Your task to perform on an android device: check google app version Image 0: 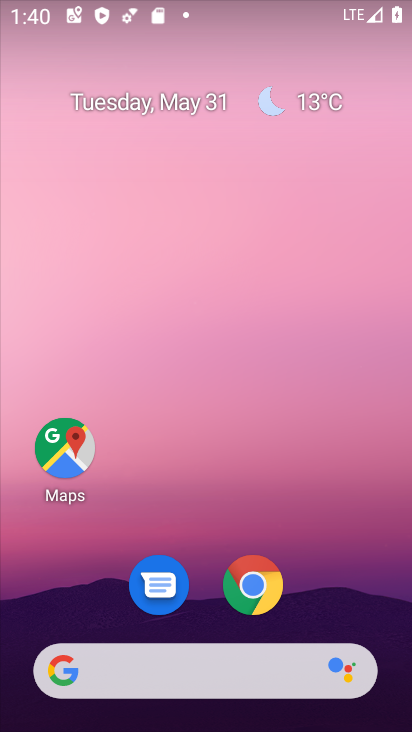
Step 0: drag from (219, 488) to (207, 66)
Your task to perform on an android device: check google app version Image 1: 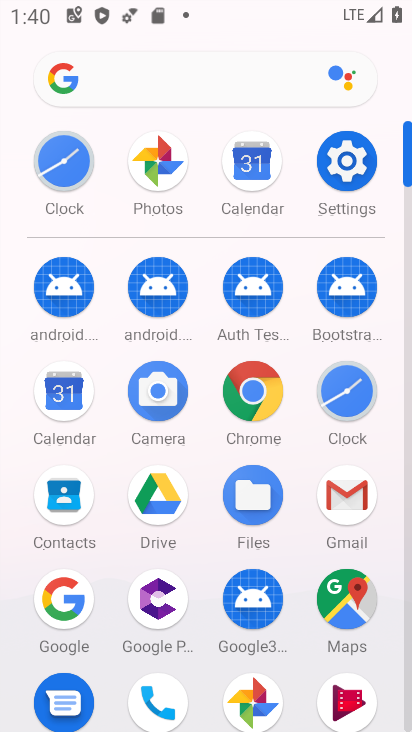
Step 1: click (62, 584)
Your task to perform on an android device: check google app version Image 2: 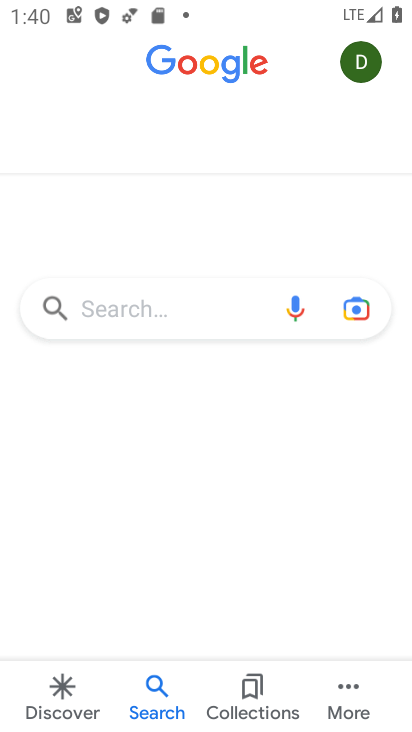
Step 2: click (356, 681)
Your task to perform on an android device: check google app version Image 3: 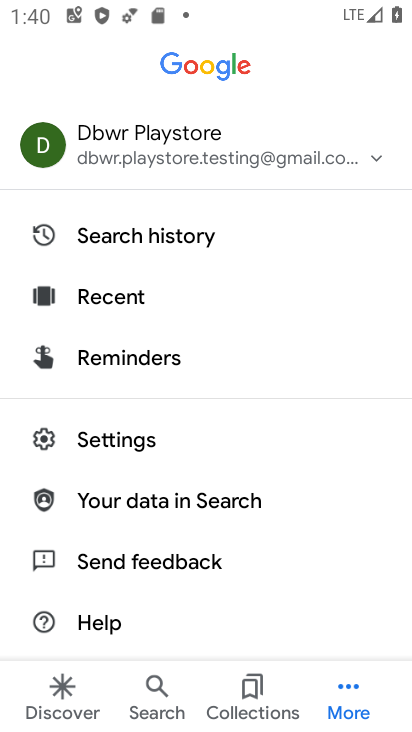
Step 3: click (133, 435)
Your task to perform on an android device: check google app version Image 4: 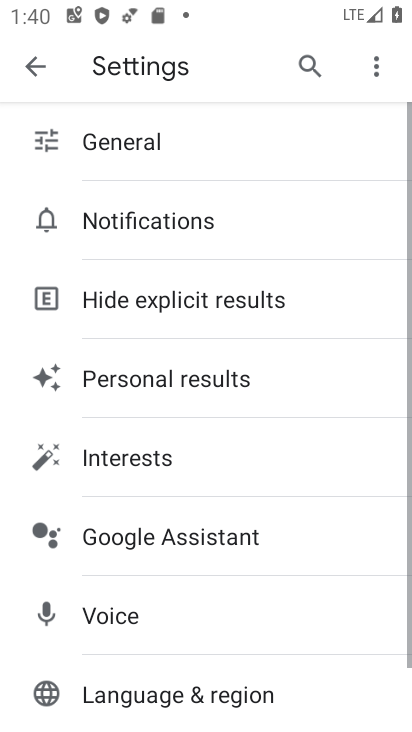
Step 4: drag from (163, 552) to (172, 235)
Your task to perform on an android device: check google app version Image 5: 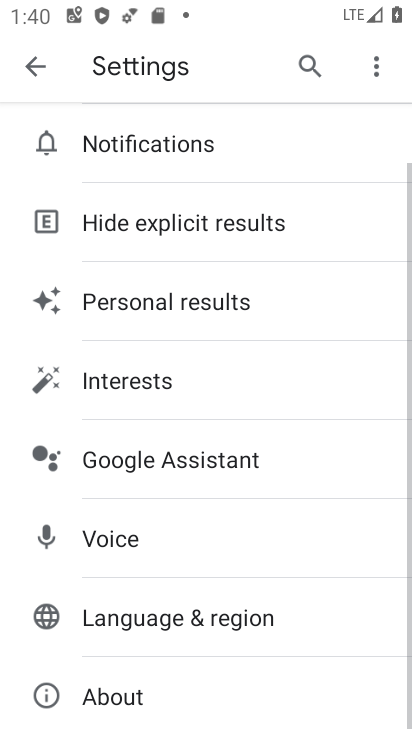
Step 5: click (127, 694)
Your task to perform on an android device: check google app version Image 6: 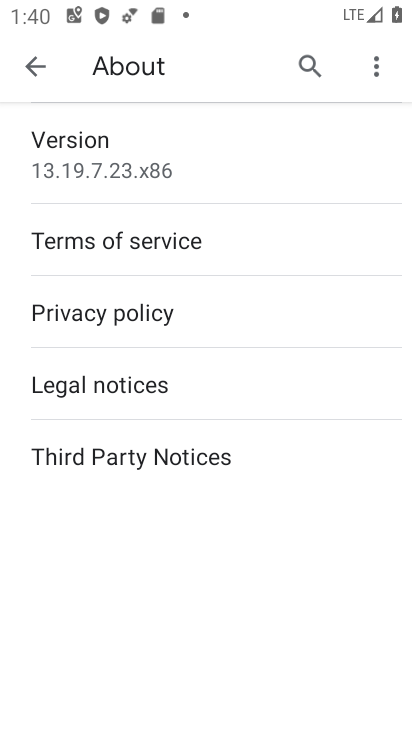
Step 6: task complete